Your task to perform on an android device: open chrome privacy settings Image 0: 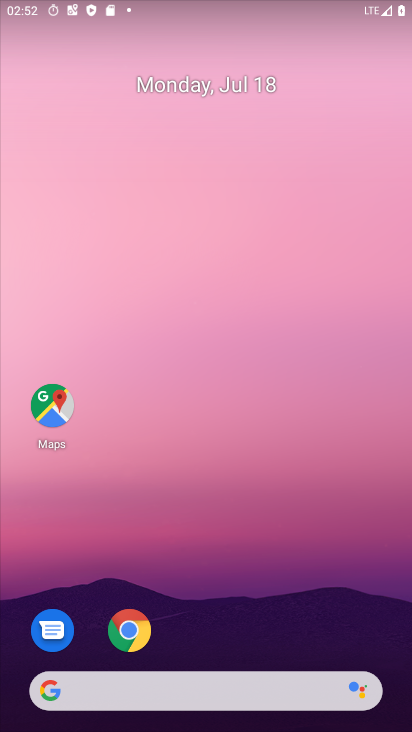
Step 0: click (142, 633)
Your task to perform on an android device: open chrome privacy settings Image 1: 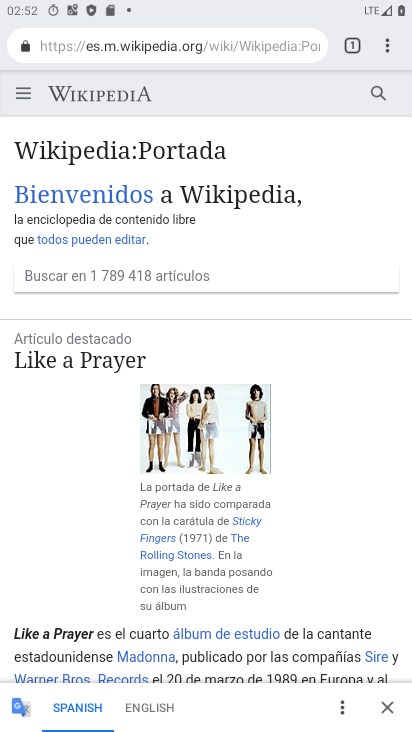
Step 1: click (391, 41)
Your task to perform on an android device: open chrome privacy settings Image 2: 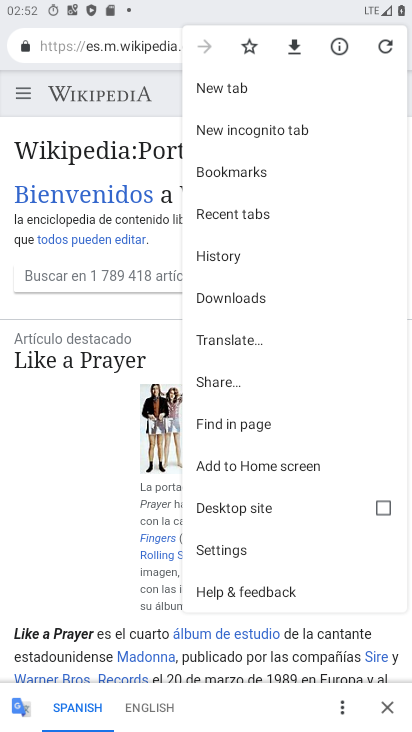
Step 2: click (244, 547)
Your task to perform on an android device: open chrome privacy settings Image 3: 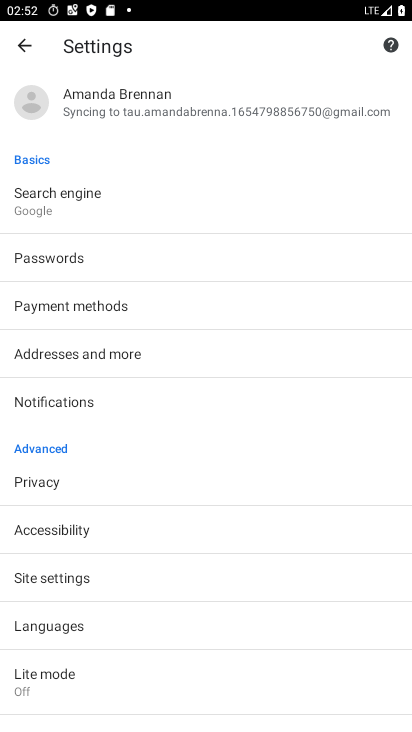
Step 3: click (83, 482)
Your task to perform on an android device: open chrome privacy settings Image 4: 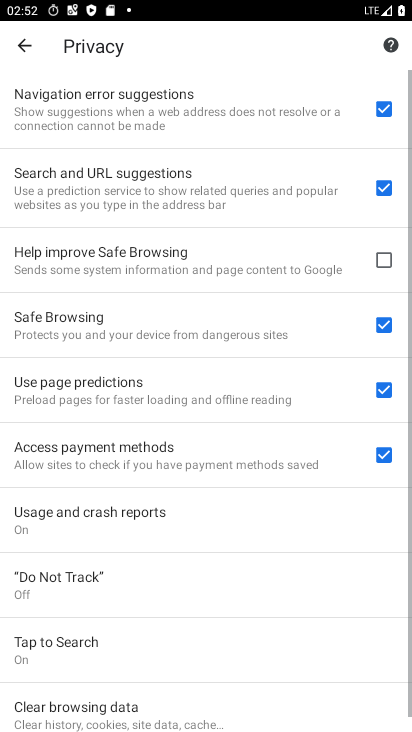
Step 4: task complete